Your task to perform on an android device: Go to Wikipedia Image 0: 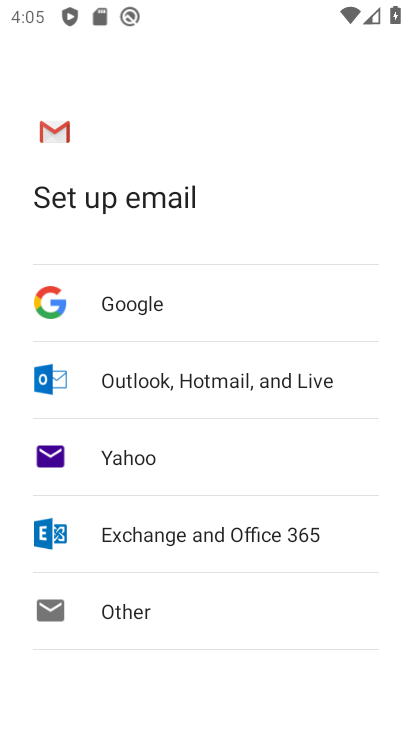
Step 0: press home button
Your task to perform on an android device: Go to Wikipedia Image 1: 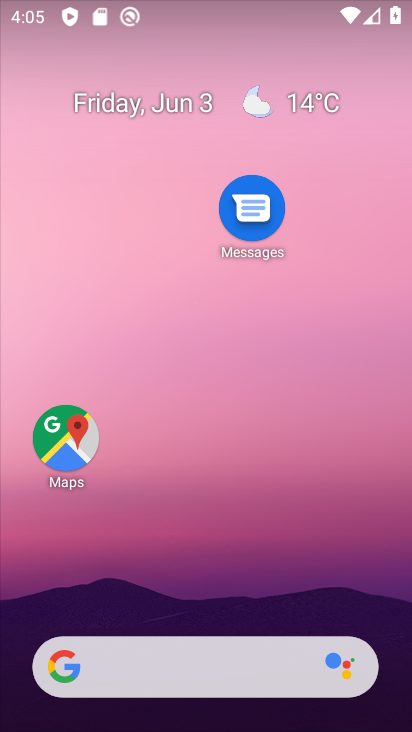
Step 1: drag from (209, 600) to (232, 112)
Your task to perform on an android device: Go to Wikipedia Image 2: 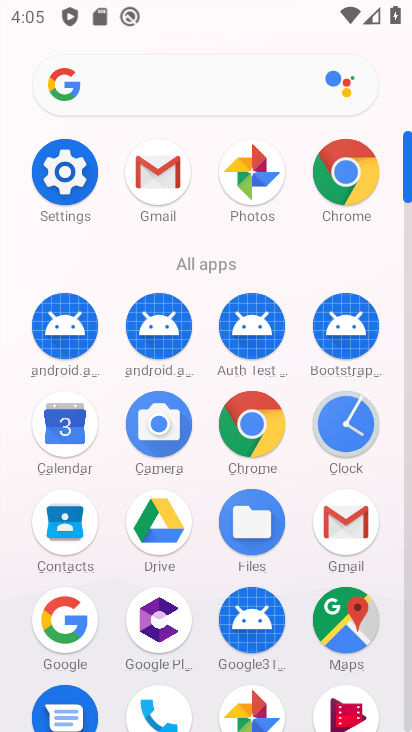
Step 2: click (345, 177)
Your task to perform on an android device: Go to Wikipedia Image 3: 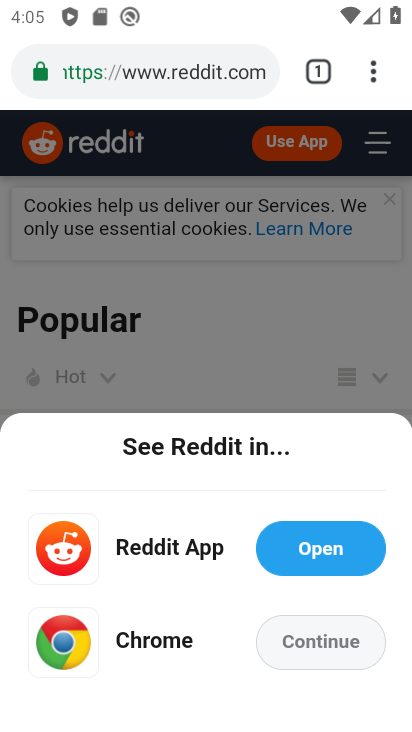
Step 3: click (310, 643)
Your task to perform on an android device: Go to Wikipedia Image 4: 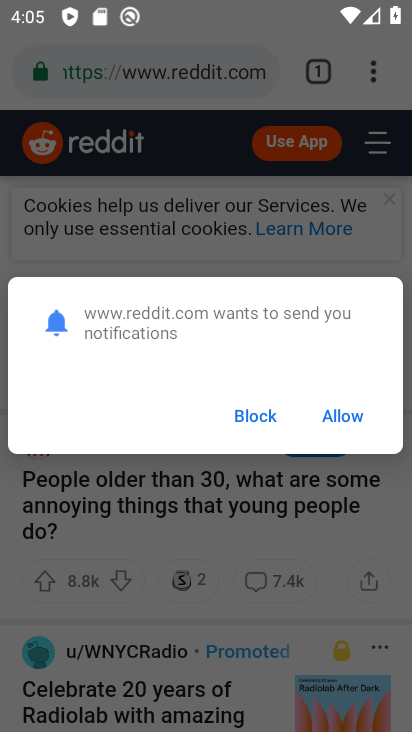
Step 4: press back button
Your task to perform on an android device: Go to Wikipedia Image 5: 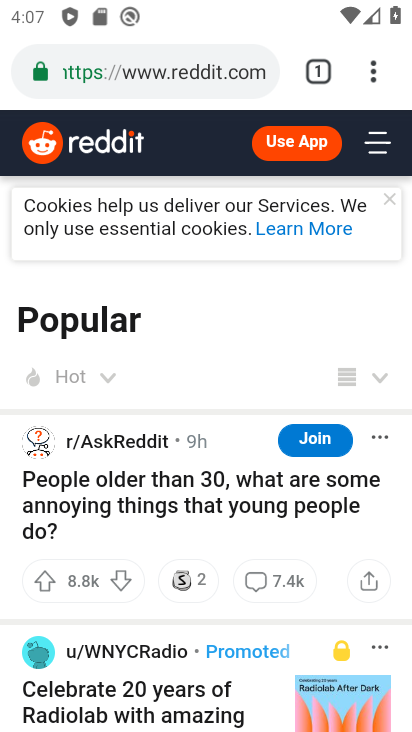
Step 5: press back button
Your task to perform on an android device: Go to Wikipedia Image 6: 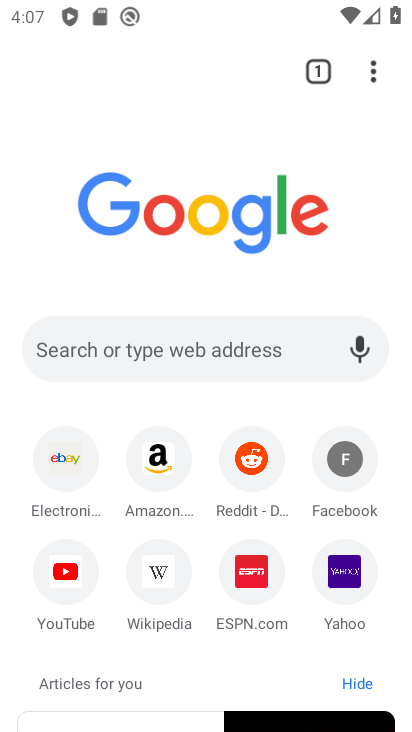
Step 6: click (153, 587)
Your task to perform on an android device: Go to Wikipedia Image 7: 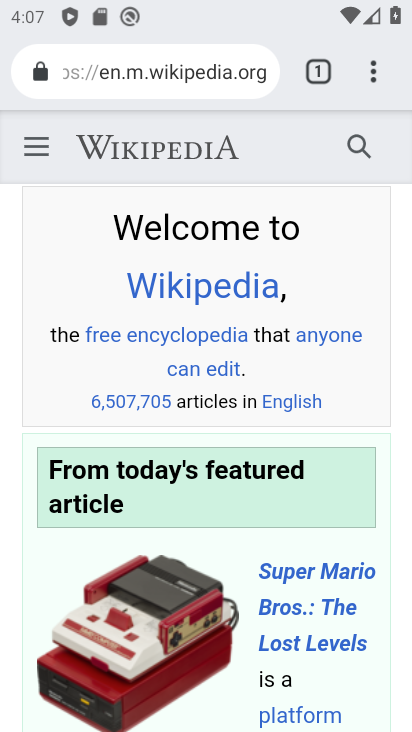
Step 7: task complete